Your task to perform on an android device: What's the weather going to be tomorrow? Image 0: 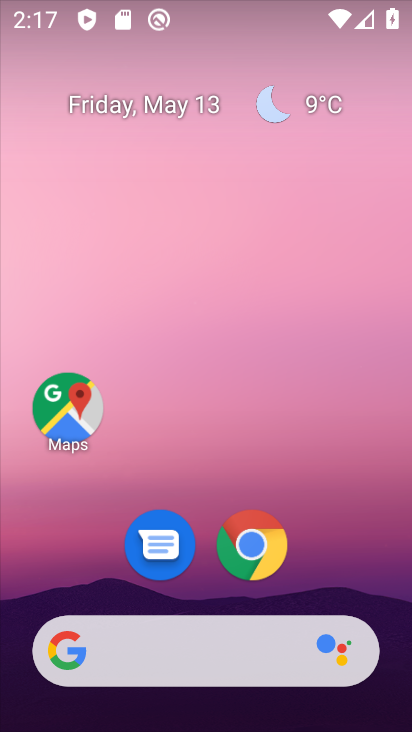
Step 0: drag from (308, 567) to (338, 148)
Your task to perform on an android device: What's the weather going to be tomorrow? Image 1: 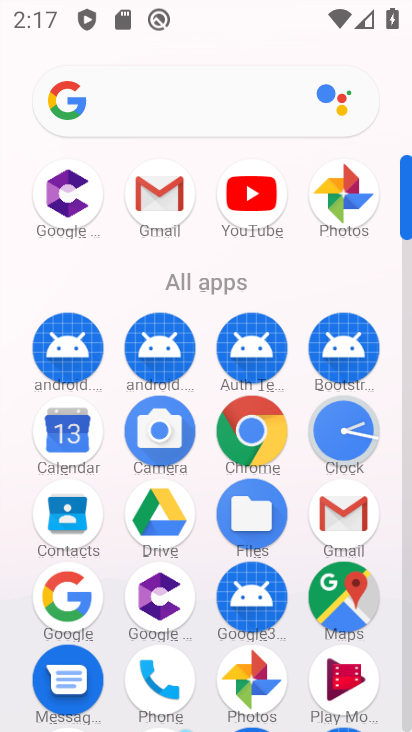
Step 1: click (255, 432)
Your task to perform on an android device: What's the weather going to be tomorrow? Image 2: 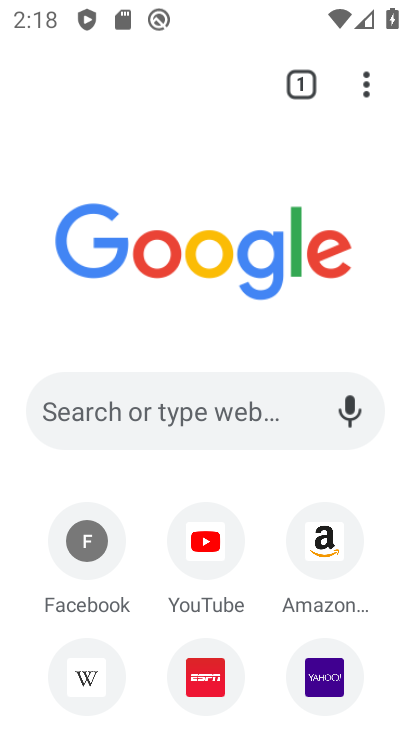
Step 2: click (191, 407)
Your task to perform on an android device: What's the weather going to be tomorrow? Image 3: 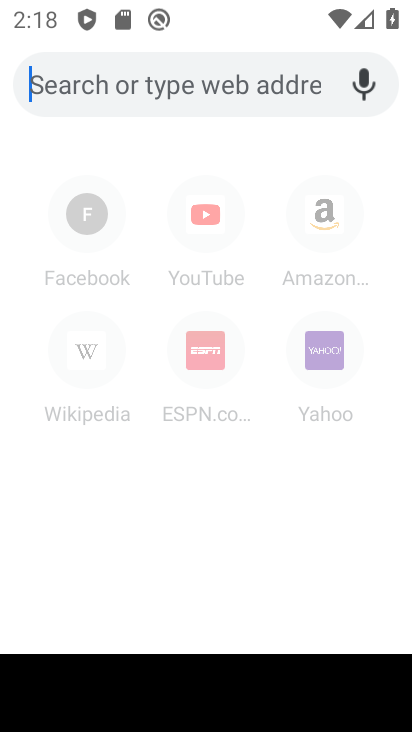
Step 3: type "What's the weather going to be tomorrow?"
Your task to perform on an android device: What's the weather going to be tomorrow? Image 4: 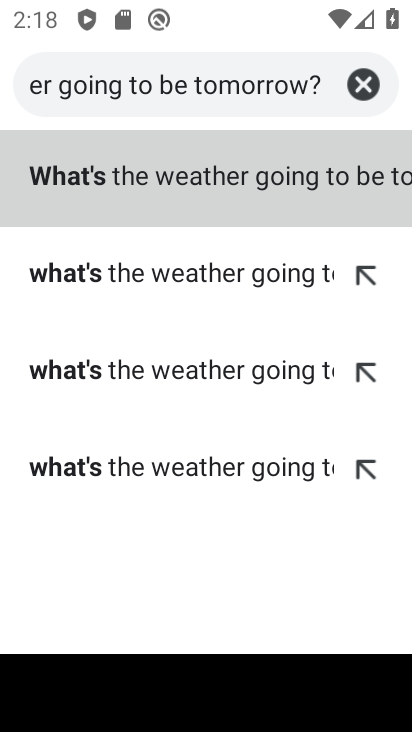
Step 4: click (139, 172)
Your task to perform on an android device: What's the weather going to be tomorrow? Image 5: 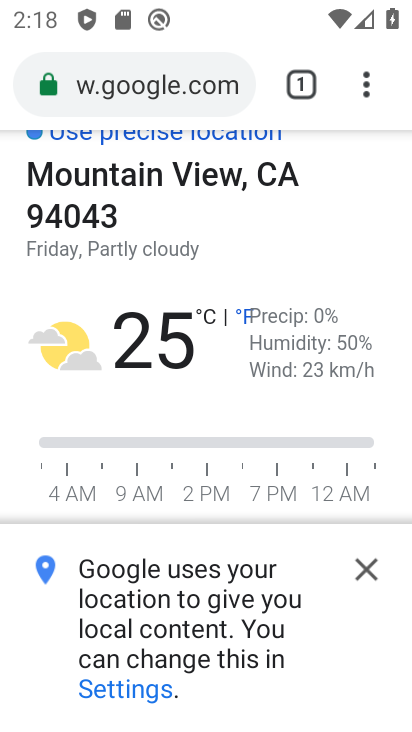
Step 5: task complete